Your task to perform on an android device: install app "Google Maps" Image 0: 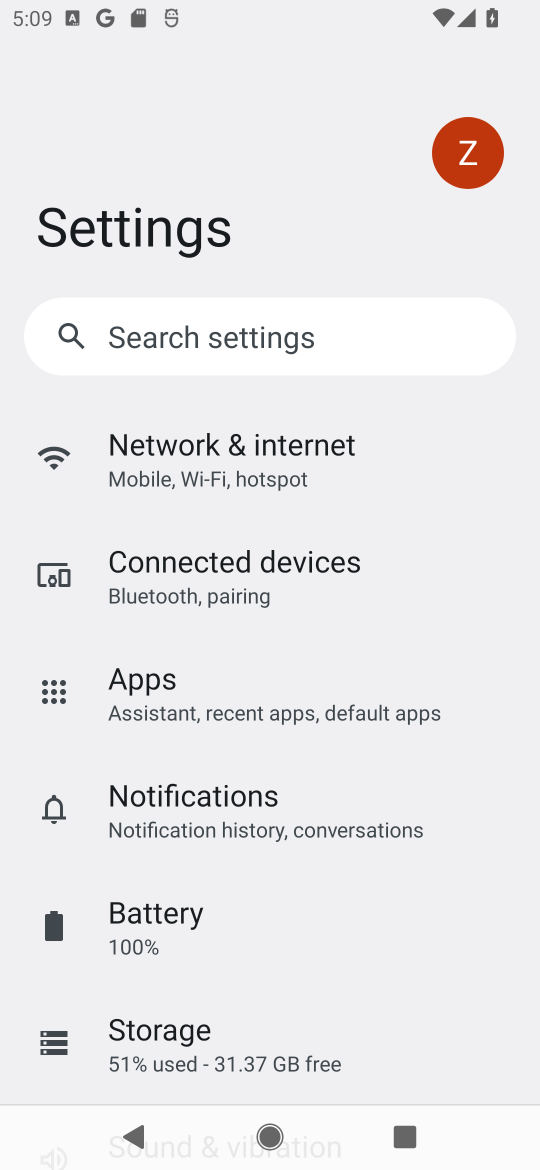
Step 0: press home button
Your task to perform on an android device: install app "Google Maps" Image 1: 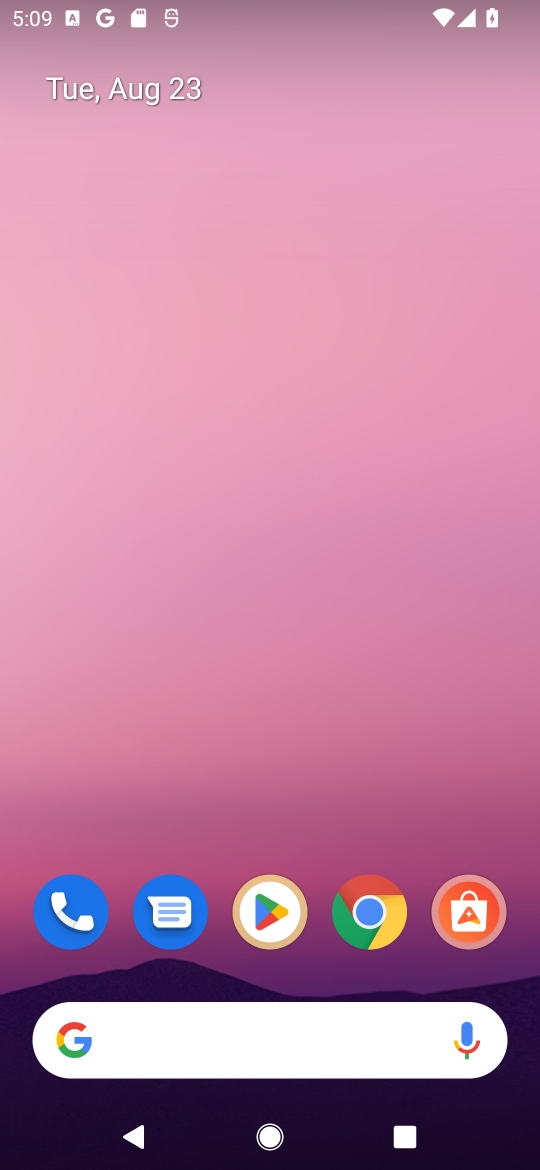
Step 1: drag from (248, 979) to (280, 253)
Your task to perform on an android device: install app "Google Maps" Image 2: 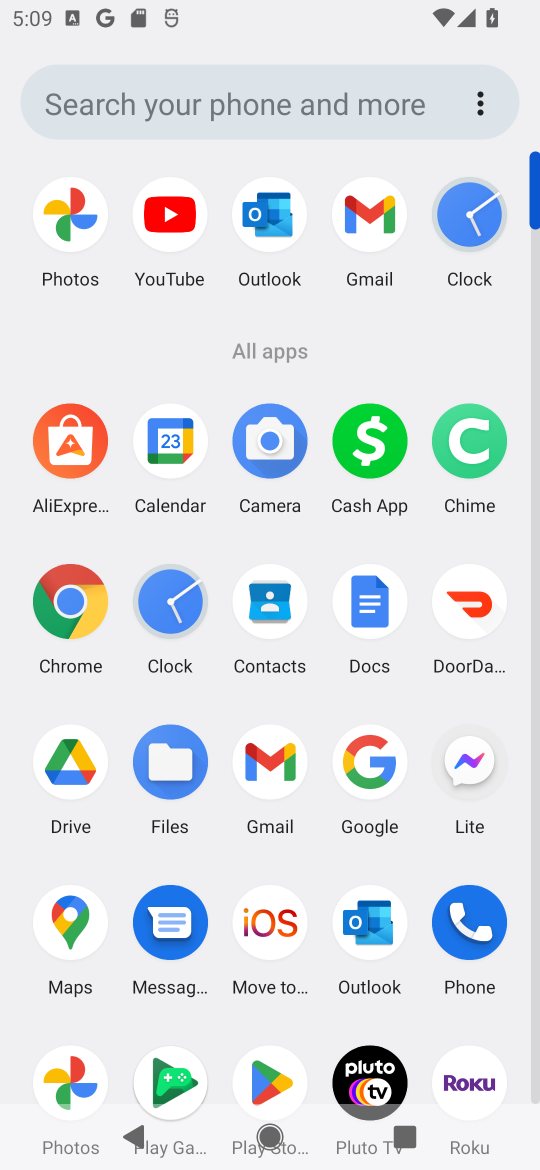
Step 2: drag from (200, 820) to (217, 270)
Your task to perform on an android device: install app "Google Maps" Image 3: 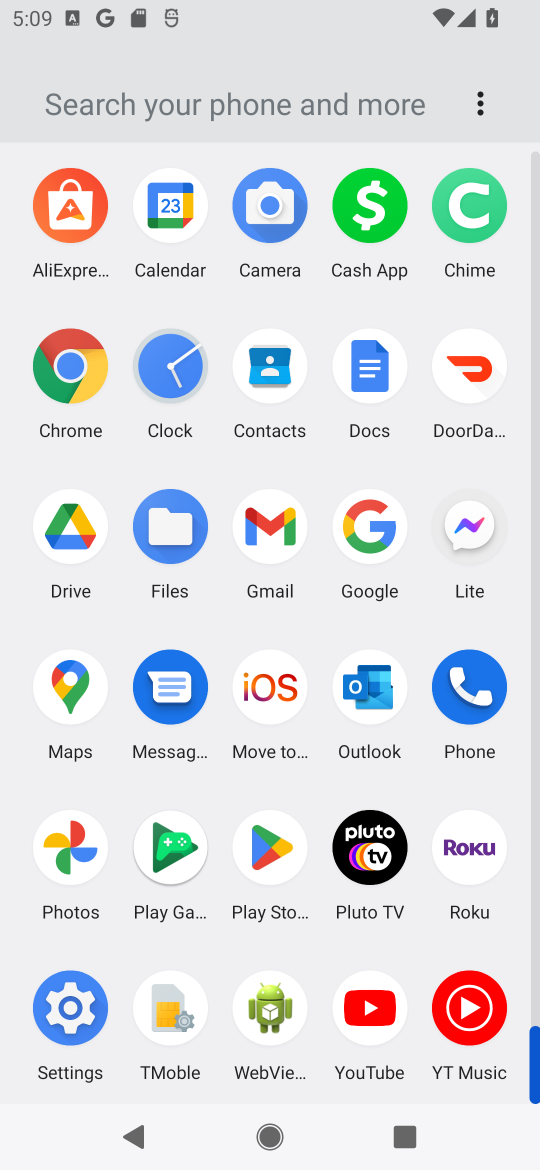
Step 3: click (274, 839)
Your task to perform on an android device: install app "Google Maps" Image 4: 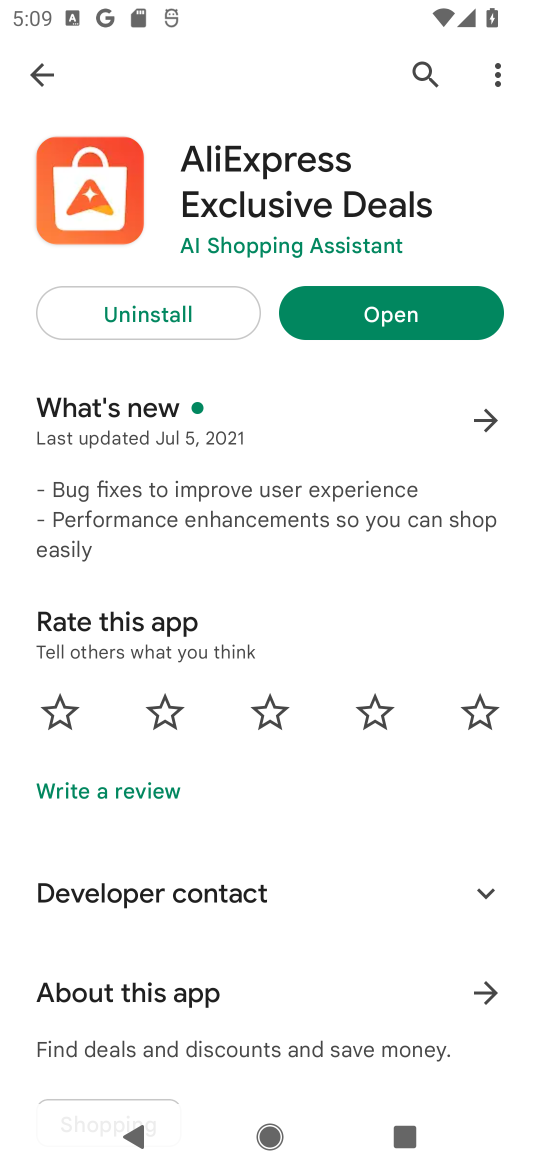
Step 4: click (22, 59)
Your task to perform on an android device: install app "Google Maps" Image 5: 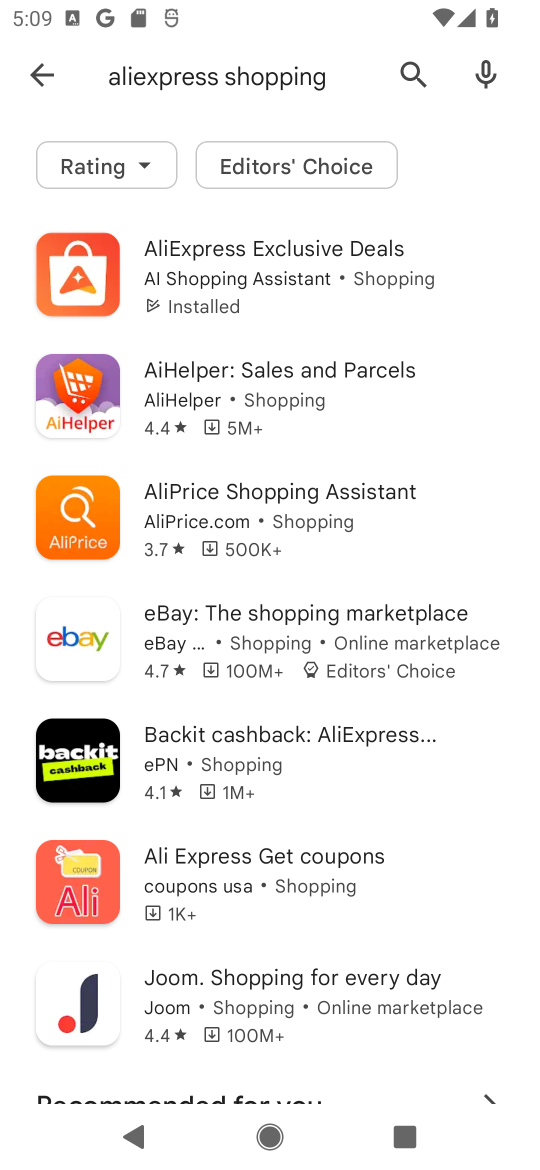
Step 5: click (62, 79)
Your task to perform on an android device: install app "Google Maps" Image 6: 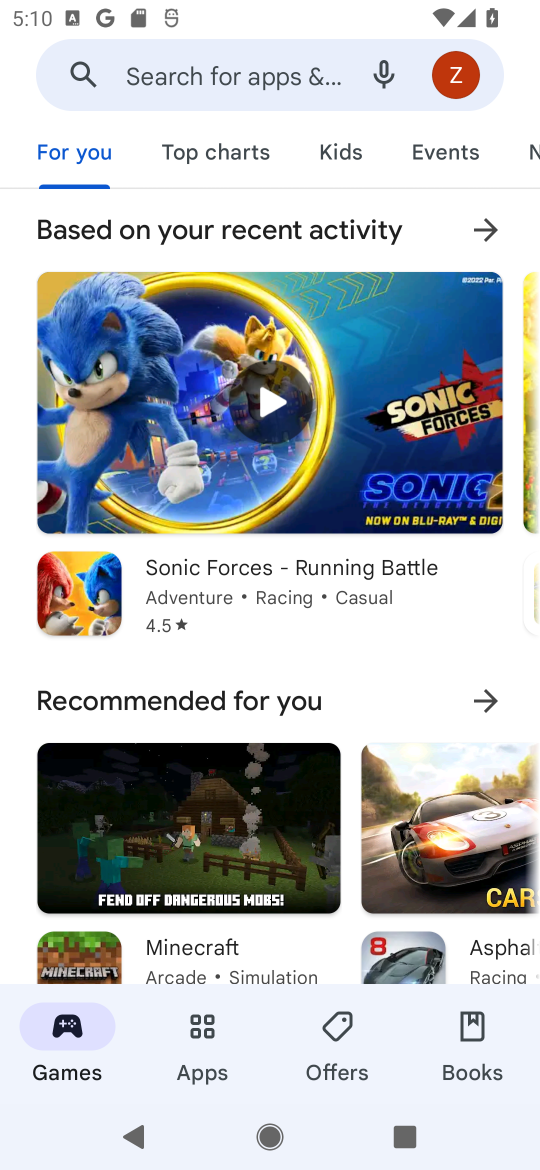
Step 6: click (222, 58)
Your task to perform on an android device: install app "Google Maps" Image 7: 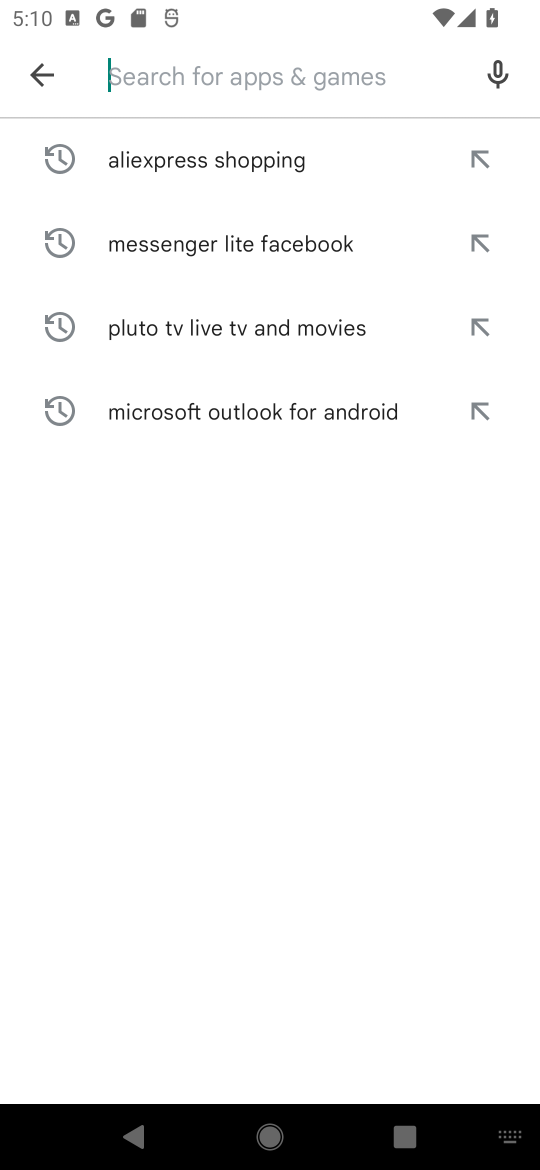
Step 7: type "Google Maps "
Your task to perform on an android device: install app "Google Maps" Image 8: 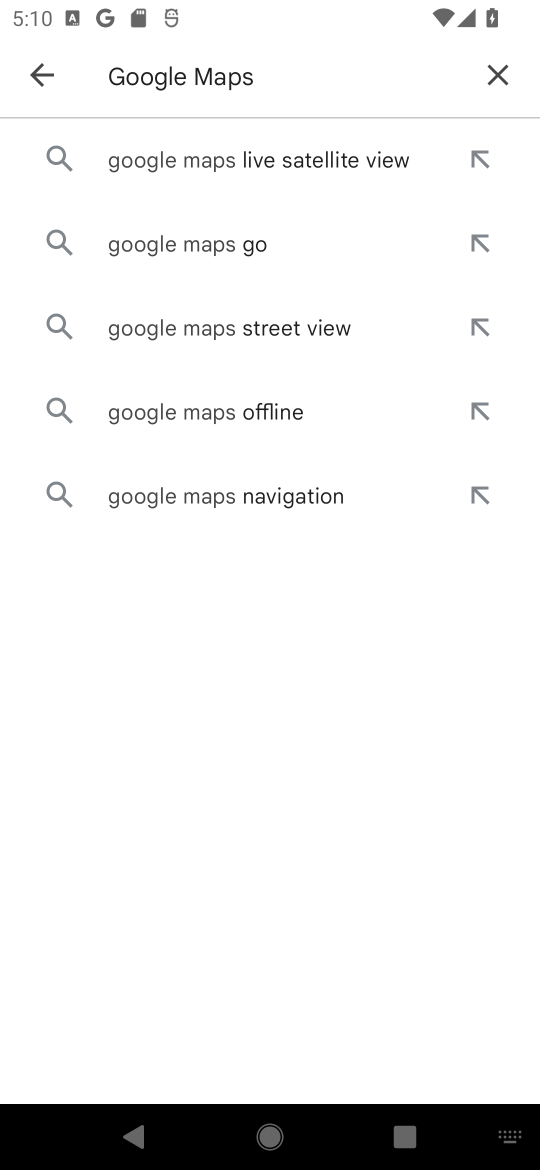
Step 8: click (233, 252)
Your task to perform on an android device: install app "Google Maps" Image 9: 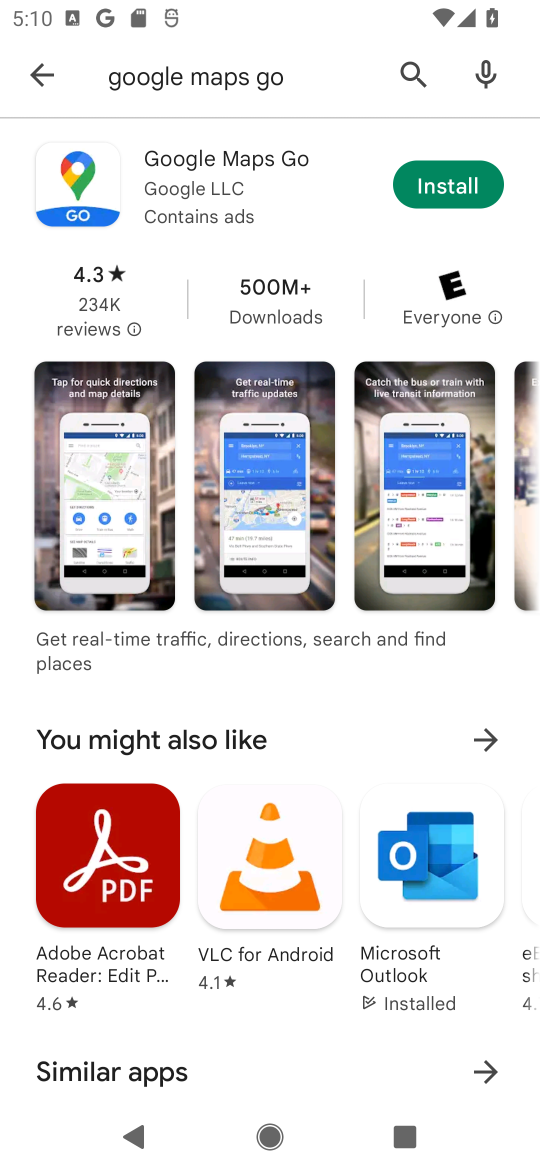
Step 9: click (419, 179)
Your task to perform on an android device: install app "Google Maps" Image 10: 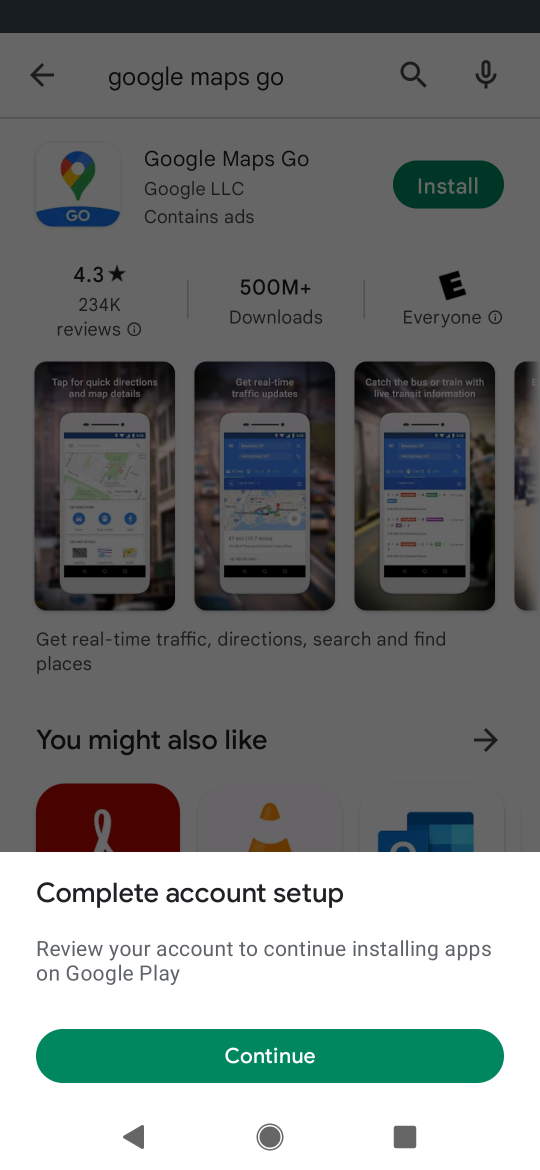
Step 10: click (215, 1039)
Your task to perform on an android device: install app "Google Maps" Image 11: 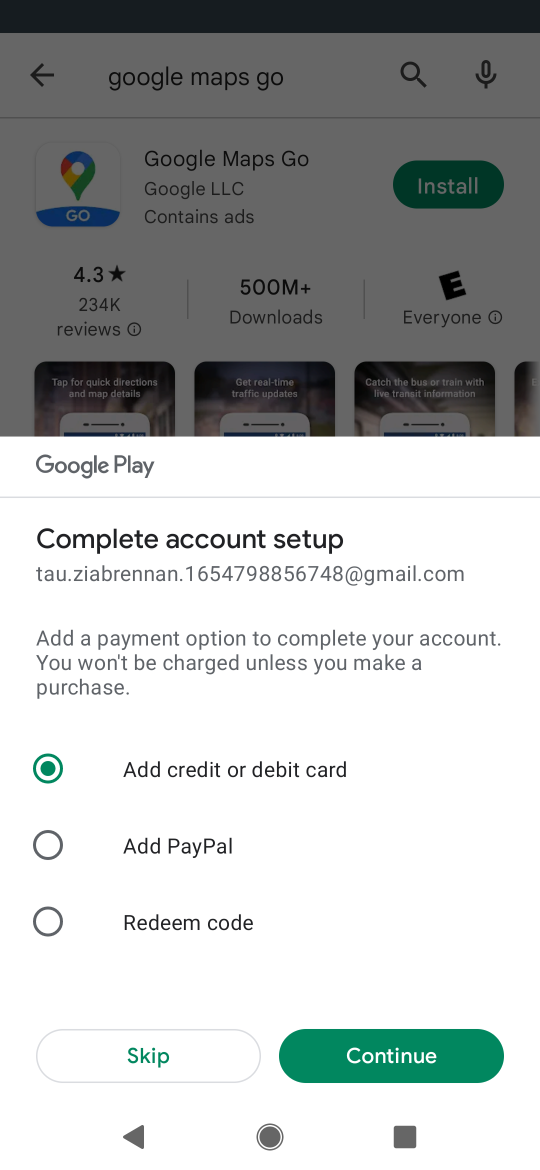
Step 11: task complete